Your task to perform on an android device: choose inbox layout in the gmail app Image 0: 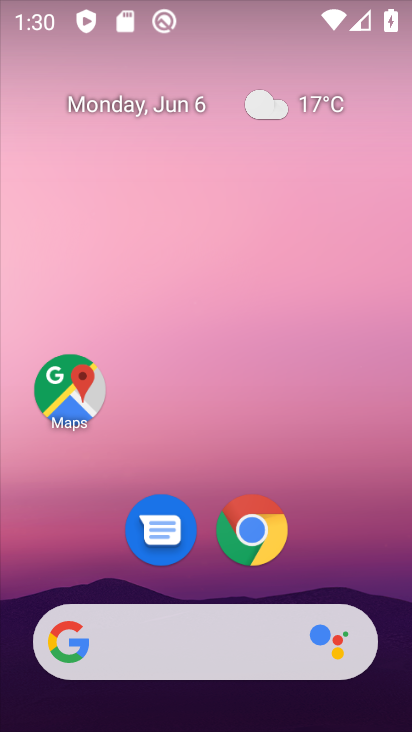
Step 0: drag from (317, 541) to (304, 259)
Your task to perform on an android device: choose inbox layout in the gmail app Image 1: 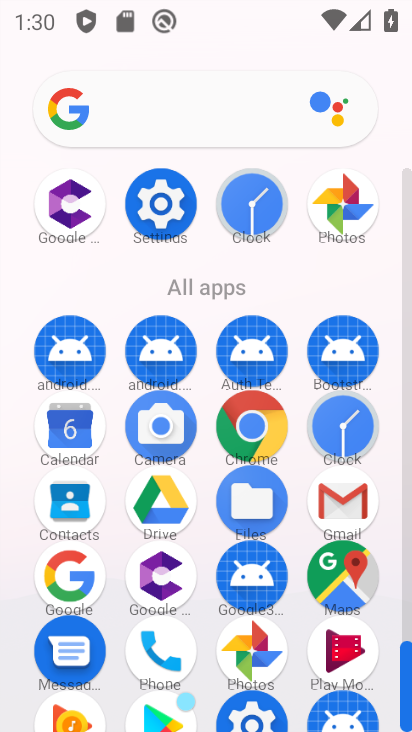
Step 1: click (329, 495)
Your task to perform on an android device: choose inbox layout in the gmail app Image 2: 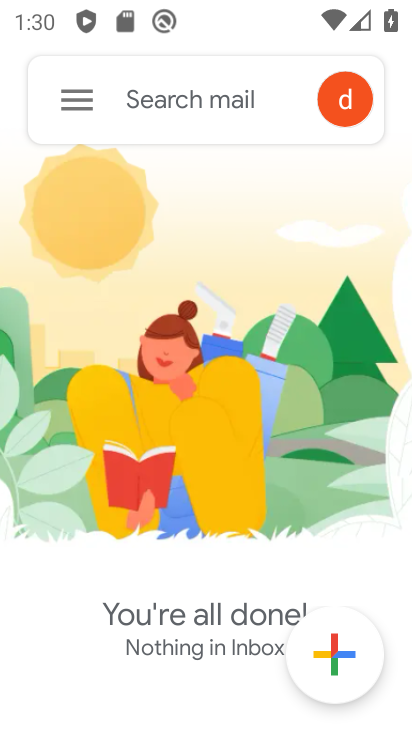
Step 2: click (63, 89)
Your task to perform on an android device: choose inbox layout in the gmail app Image 3: 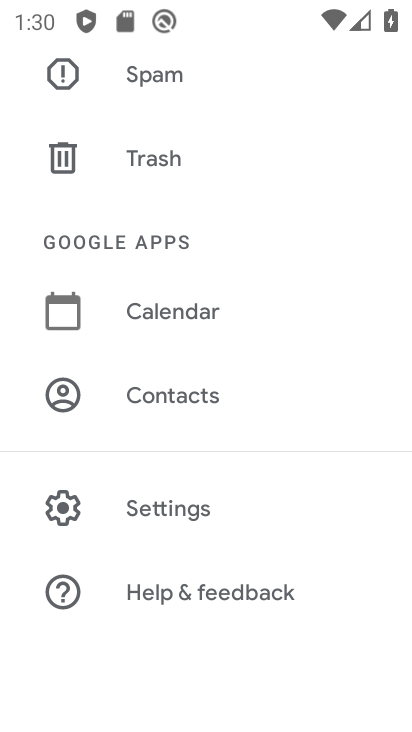
Step 3: click (167, 490)
Your task to perform on an android device: choose inbox layout in the gmail app Image 4: 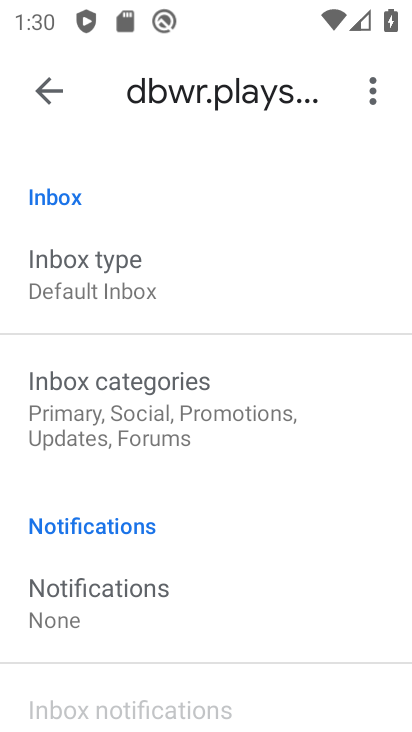
Step 4: click (76, 284)
Your task to perform on an android device: choose inbox layout in the gmail app Image 5: 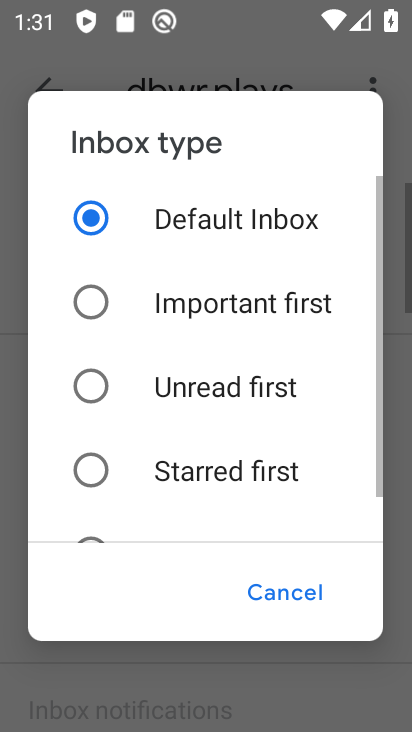
Step 5: click (121, 325)
Your task to perform on an android device: choose inbox layout in the gmail app Image 6: 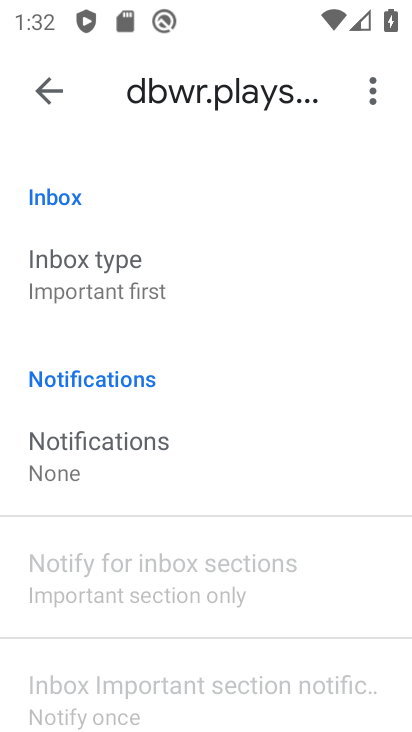
Step 6: task complete